Your task to perform on an android device: turn on javascript in the chrome app Image 0: 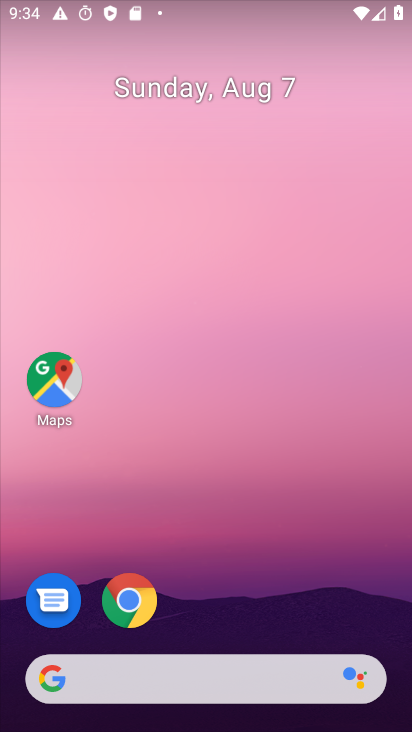
Step 0: drag from (240, 506) to (315, 175)
Your task to perform on an android device: turn on javascript in the chrome app Image 1: 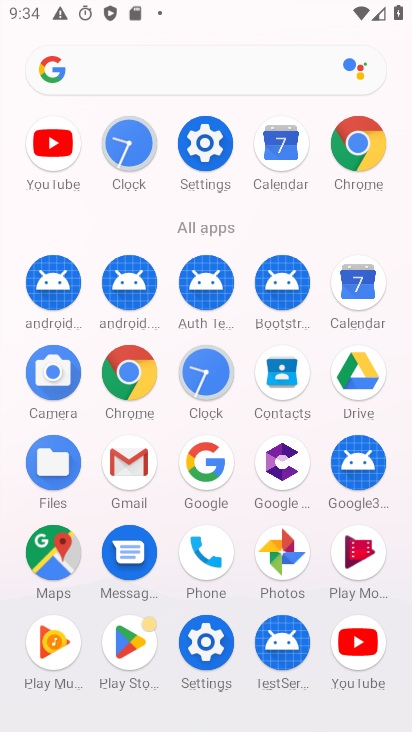
Step 1: click (350, 146)
Your task to perform on an android device: turn on javascript in the chrome app Image 2: 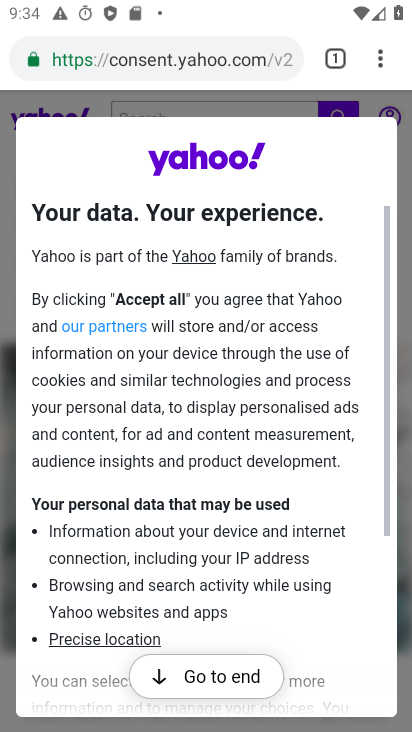
Step 2: click (388, 67)
Your task to perform on an android device: turn on javascript in the chrome app Image 3: 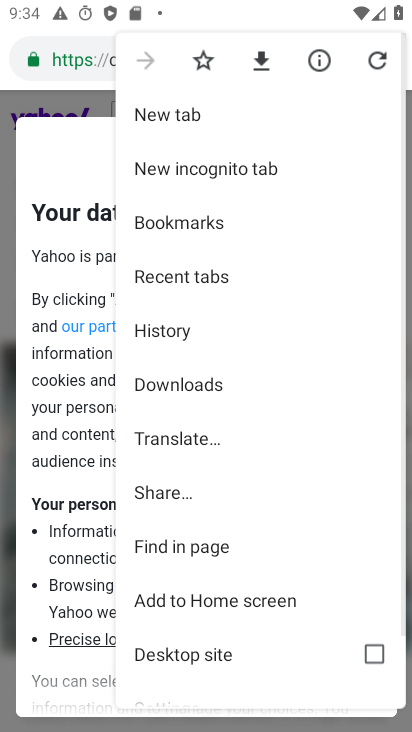
Step 3: drag from (258, 490) to (307, 191)
Your task to perform on an android device: turn on javascript in the chrome app Image 4: 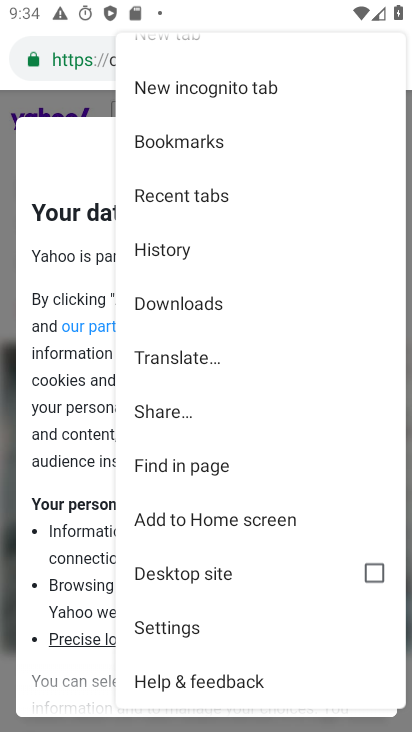
Step 4: click (168, 614)
Your task to perform on an android device: turn on javascript in the chrome app Image 5: 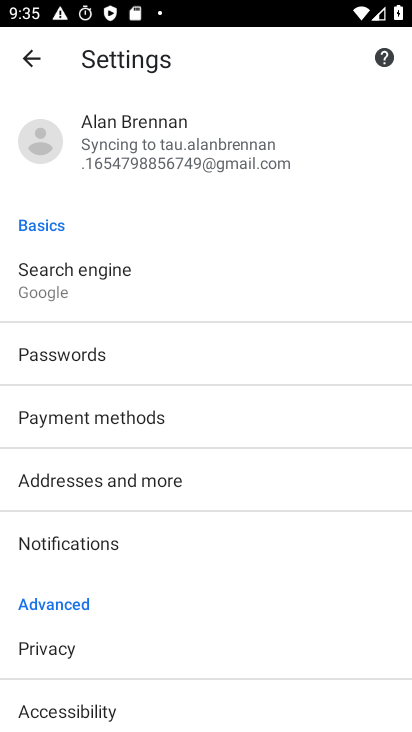
Step 5: drag from (252, 494) to (300, 219)
Your task to perform on an android device: turn on javascript in the chrome app Image 6: 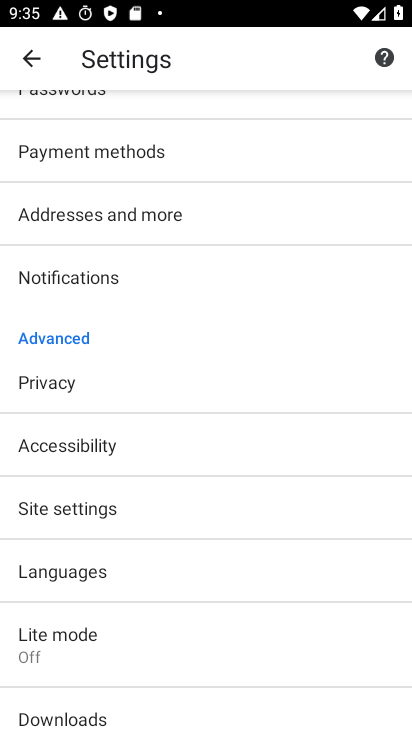
Step 6: click (125, 512)
Your task to perform on an android device: turn on javascript in the chrome app Image 7: 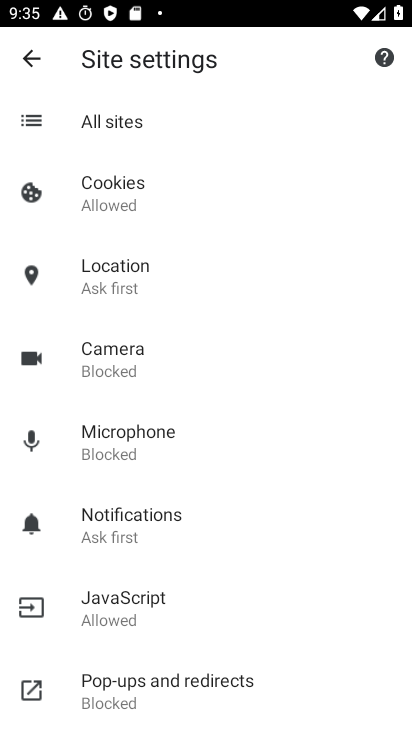
Step 7: click (179, 594)
Your task to perform on an android device: turn on javascript in the chrome app Image 8: 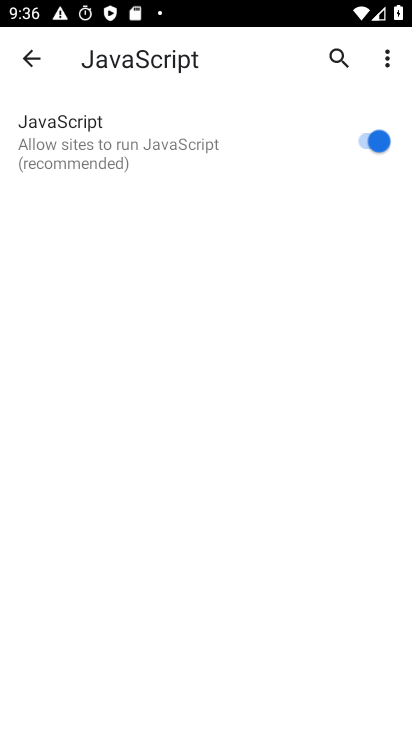
Step 8: task complete